Your task to perform on an android device: What is the news today? Image 0: 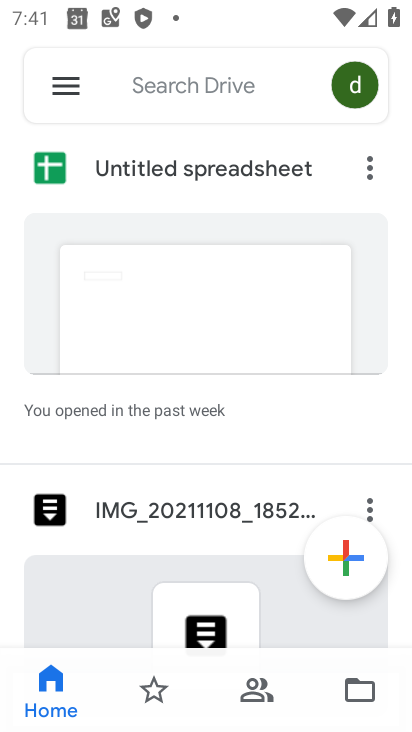
Step 0: press home button
Your task to perform on an android device: What is the news today? Image 1: 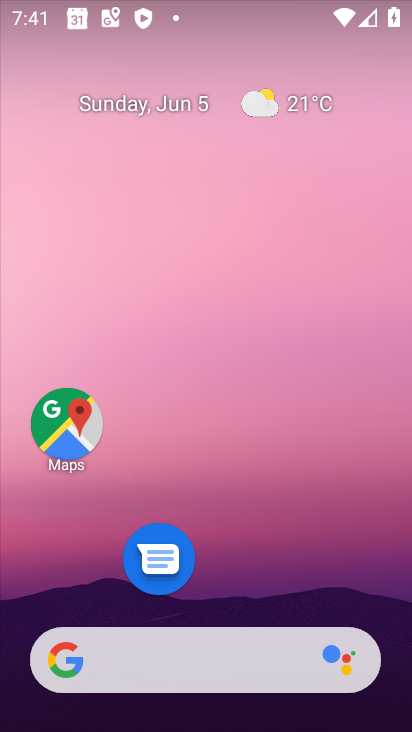
Step 1: click (215, 661)
Your task to perform on an android device: What is the news today? Image 2: 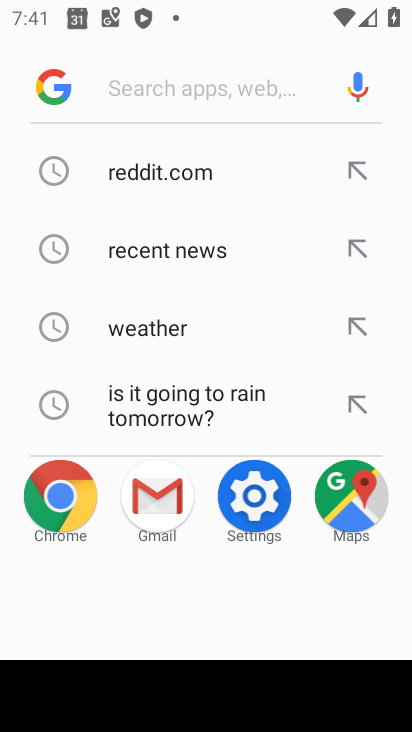
Step 2: drag from (118, 182) to (113, 676)
Your task to perform on an android device: What is the news today? Image 3: 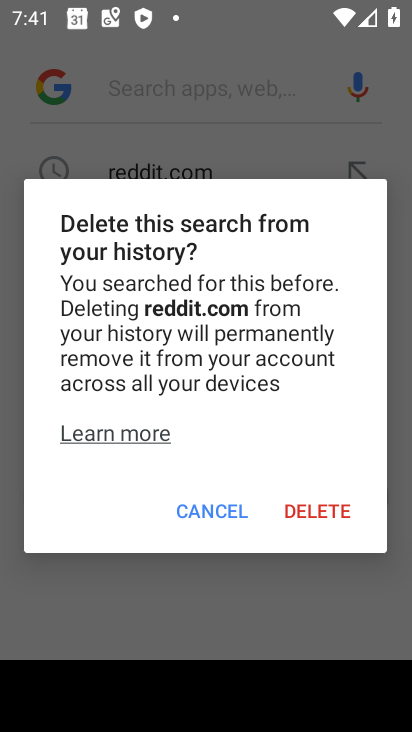
Step 3: click (195, 516)
Your task to perform on an android device: What is the news today? Image 4: 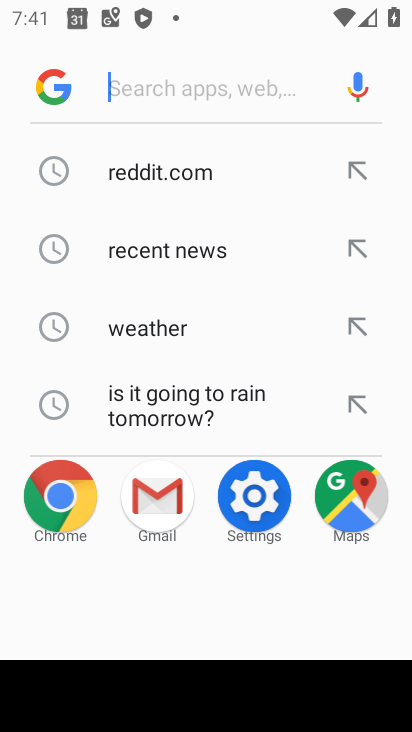
Step 4: click (177, 257)
Your task to perform on an android device: What is the news today? Image 5: 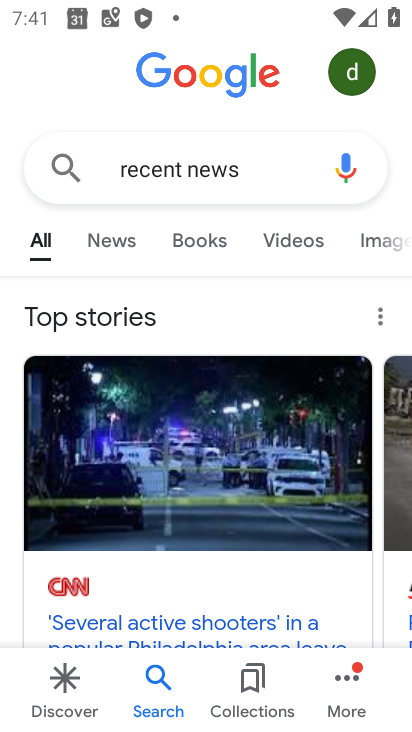
Step 5: click (105, 248)
Your task to perform on an android device: What is the news today? Image 6: 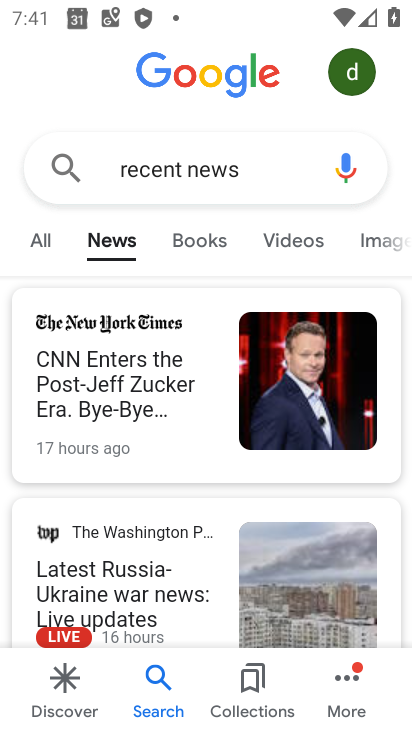
Step 6: task complete